Your task to perform on an android device: What's the weather going to be tomorrow? Image 0: 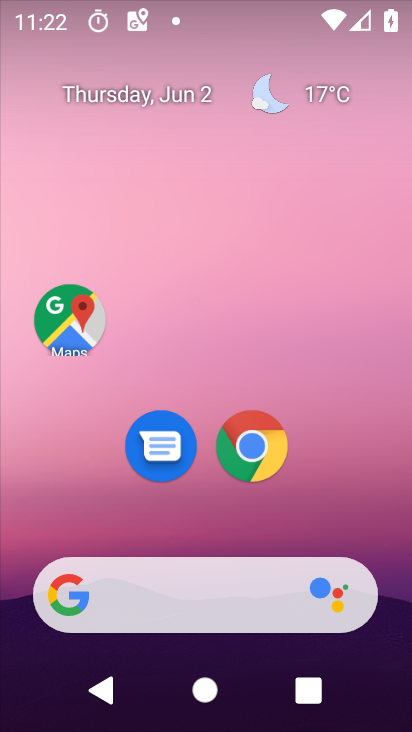
Step 0: click (310, 95)
Your task to perform on an android device: What's the weather going to be tomorrow? Image 1: 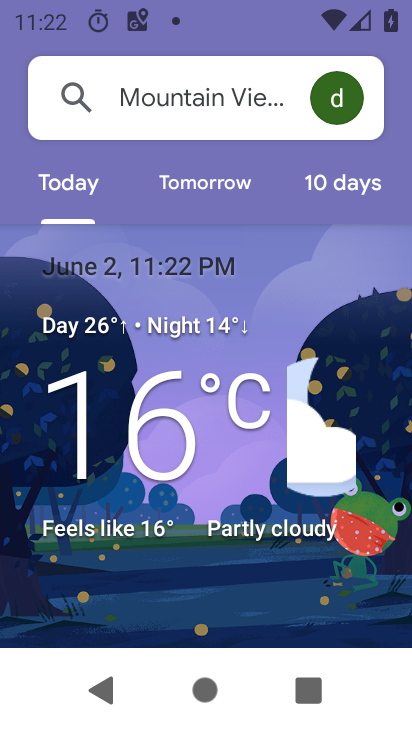
Step 1: click (222, 178)
Your task to perform on an android device: What's the weather going to be tomorrow? Image 2: 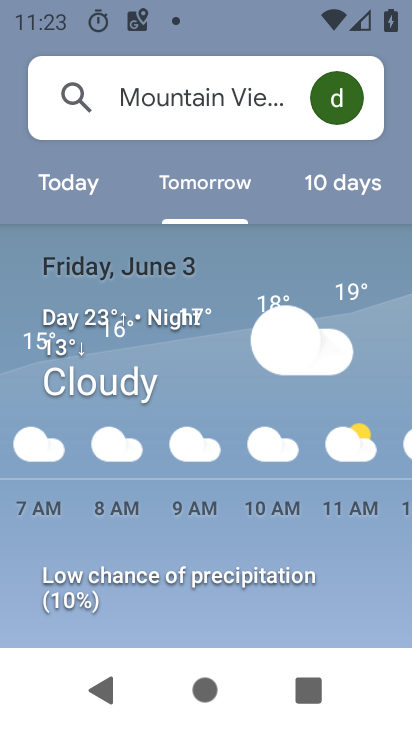
Step 2: task complete